Your task to perform on an android device: open a new tab in the chrome app Image 0: 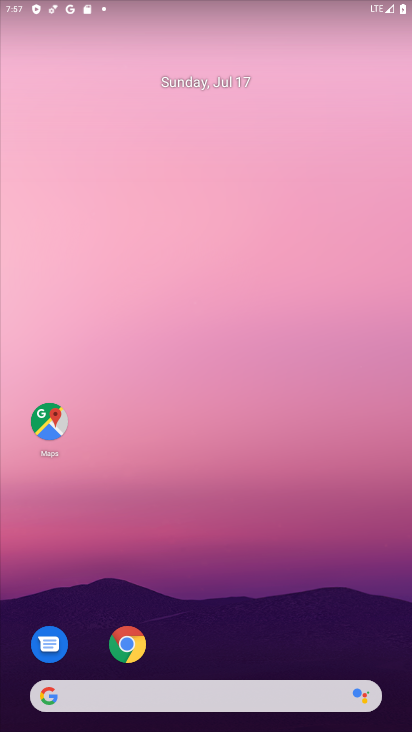
Step 0: click (120, 641)
Your task to perform on an android device: open a new tab in the chrome app Image 1: 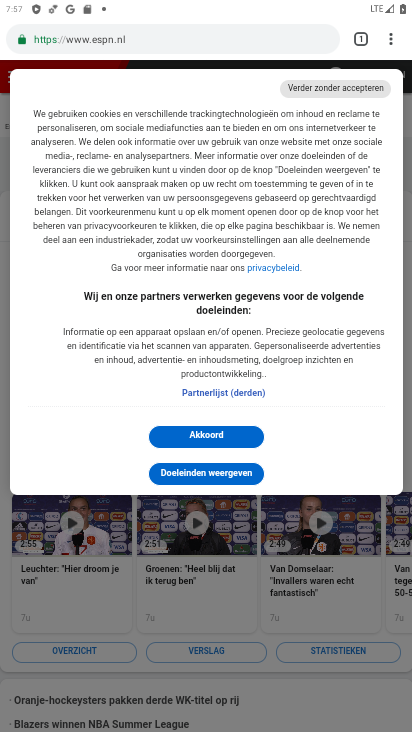
Step 1: click (379, 39)
Your task to perform on an android device: open a new tab in the chrome app Image 2: 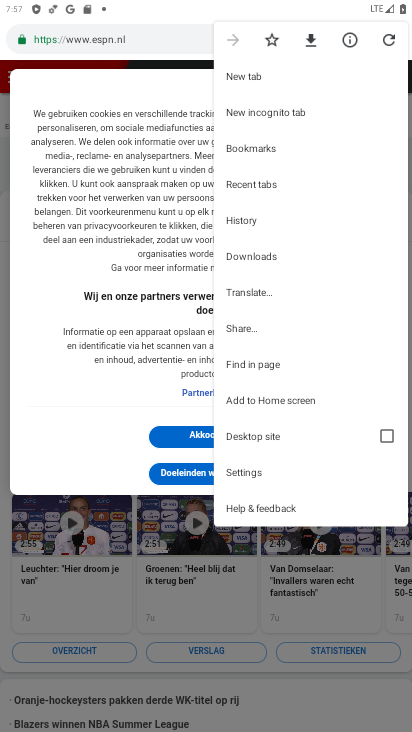
Step 2: click (247, 85)
Your task to perform on an android device: open a new tab in the chrome app Image 3: 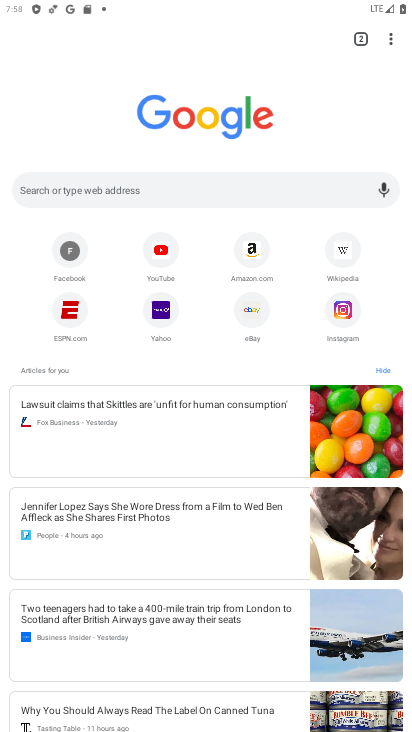
Step 3: task complete